Your task to perform on an android device: turn off improve location accuracy Image 0: 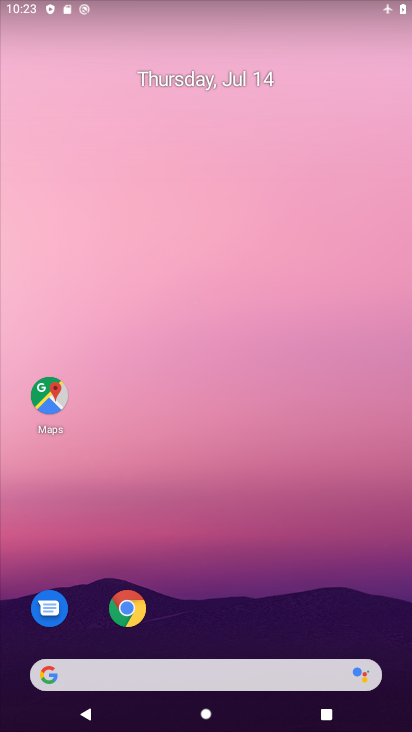
Step 0: drag from (224, 628) to (228, 167)
Your task to perform on an android device: turn off improve location accuracy Image 1: 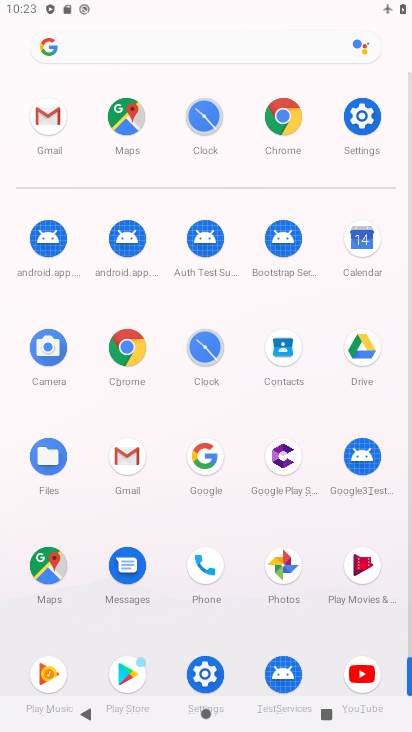
Step 1: click (205, 667)
Your task to perform on an android device: turn off improve location accuracy Image 2: 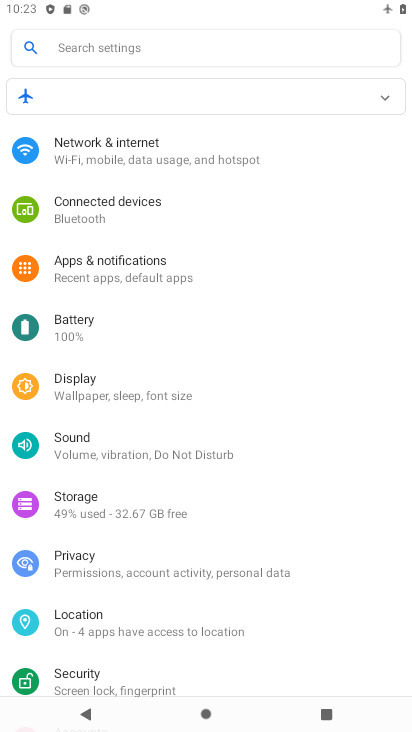
Step 2: click (100, 622)
Your task to perform on an android device: turn off improve location accuracy Image 3: 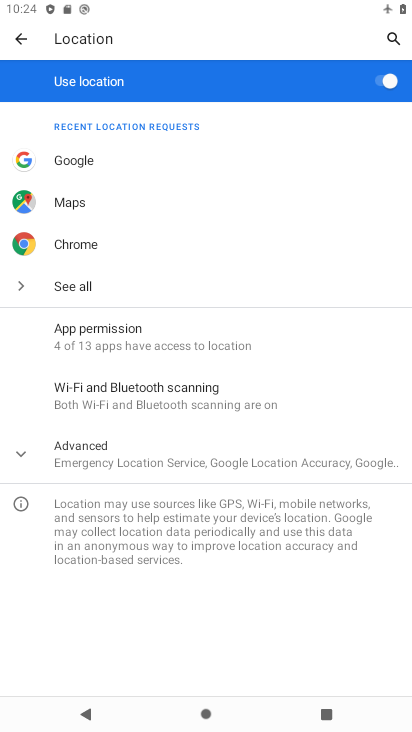
Step 3: click (129, 458)
Your task to perform on an android device: turn off improve location accuracy Image 4: 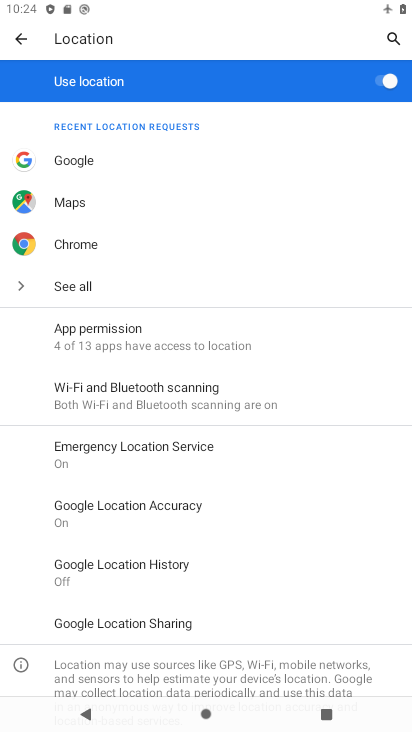
Step 4: click (178, 507)
Your task to perform on an android device: turn off improve location accuracy Image 5: 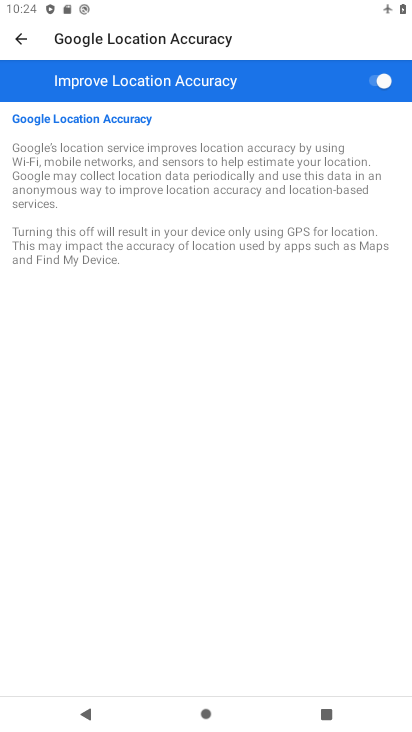
Step 5: click (343, 88)
Your task to perform on an android device: turn off improve location accuracy Image 6: 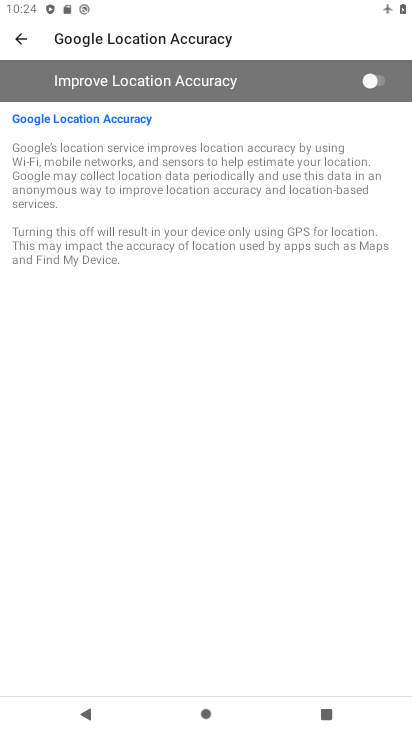
Step 6: task complete